Your task to perform on an android device: When is my next appointment? Image 0: 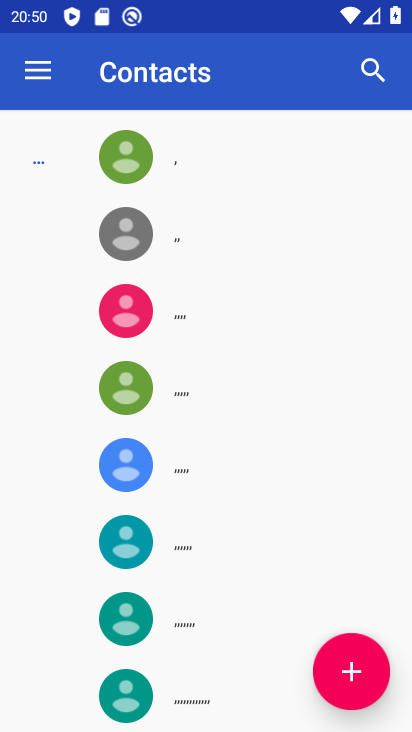
Step 0: press home button
Your task to perform on an android device: When is my next appointment? Image 1: 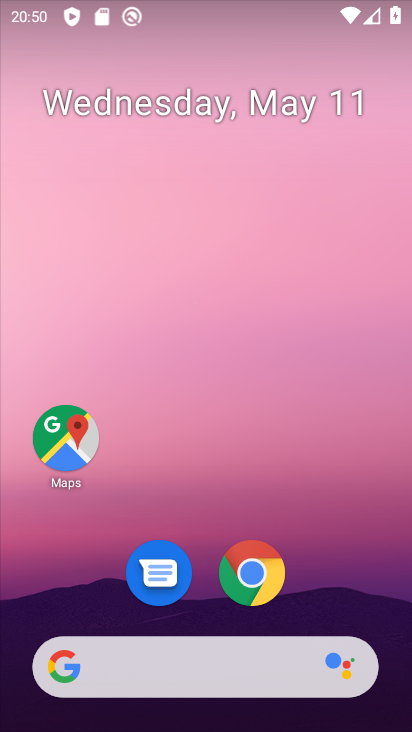
Step 1: drag from (345, 590) to (345, 48)
Your task to perform on an android device: When is my next appointment? Image 2: 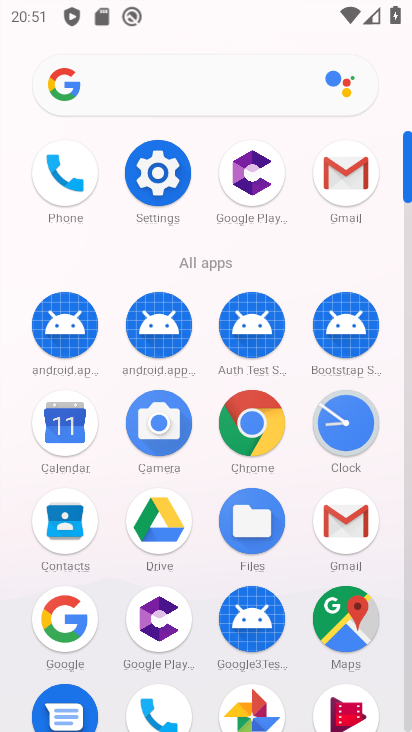
Step 2: click (72, 427)
Your task to perform on an android device: When is my next appointment? Image 3: 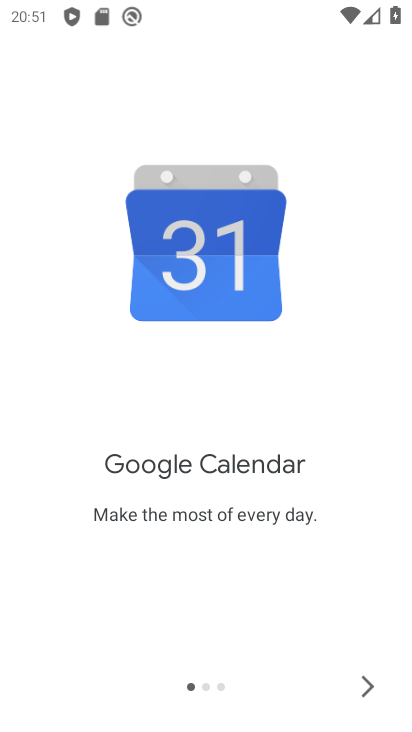
Step 3: click (374, 686)
Your task to perform on an android device: When is my next appointment? Image 4: 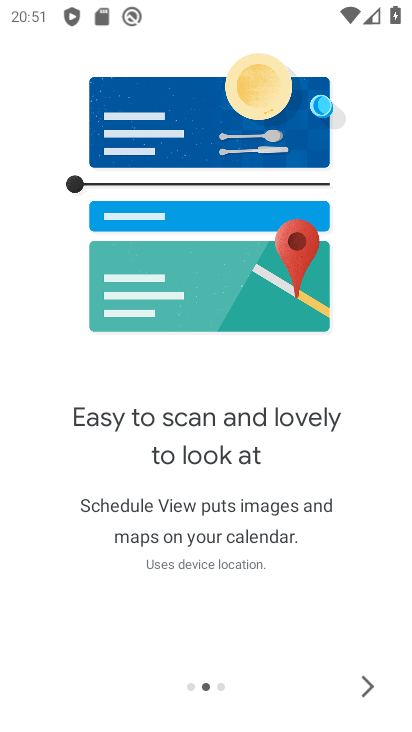
Step 4: click (374, 686)
Your task to perform on an android device: When is my next appointment? Image 5: 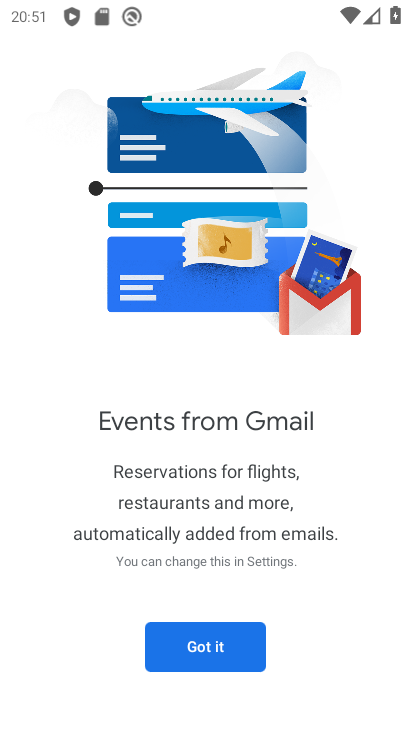
Step 5: click (374, 686)
Your task to perform on an android device: When is my next appointment? Image 6: 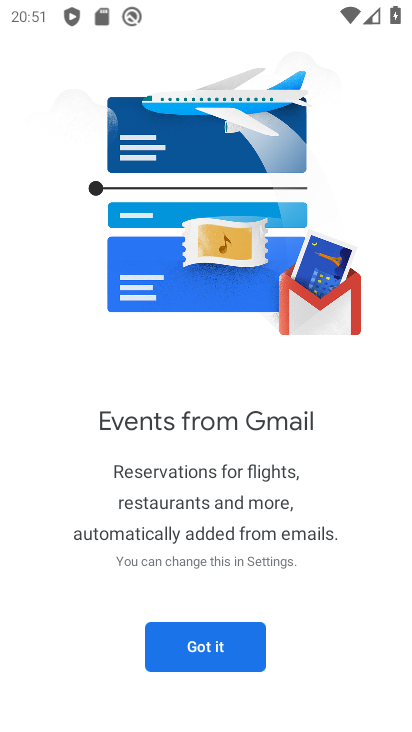
Step 6: click (195, 640)
Your task to perform on an android device: When is my next appointment? Image 7: 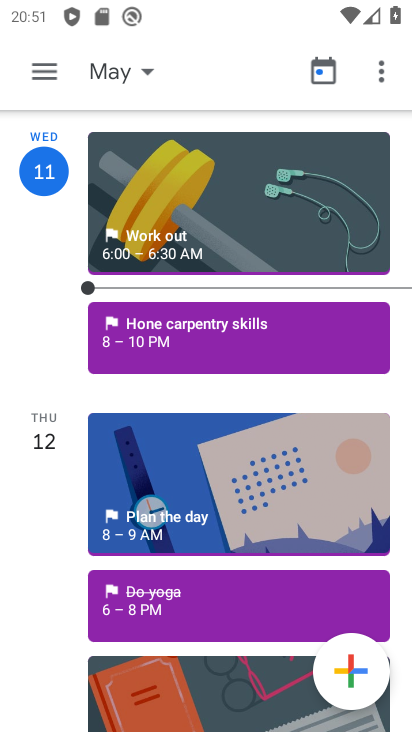
Step 7: click (41, 70)
Your task to perform on an android device: When is my next appointment? Image 8: 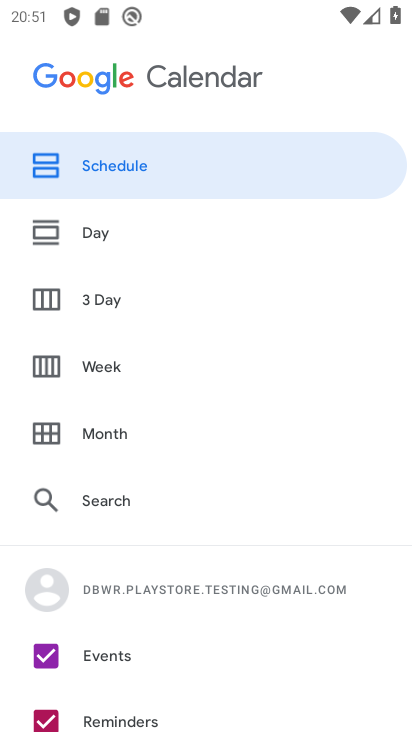
Step 8: click (122, 448)
Your task to perform on an android device: When is my next appointment? Image 9: 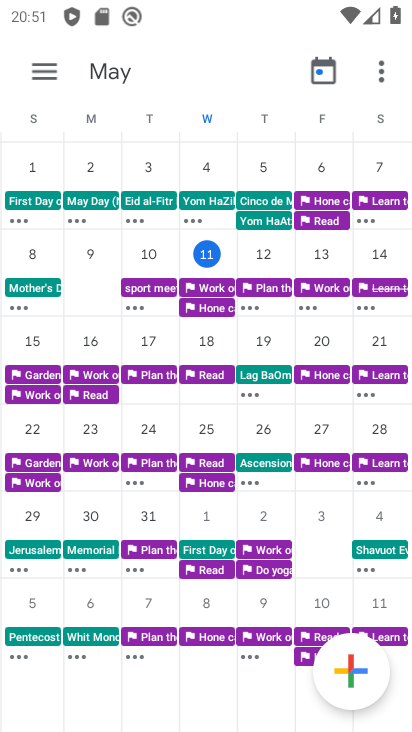
Step 9: task complete